Your task to perform on an android device: turn on improve location accuracy Image 0: 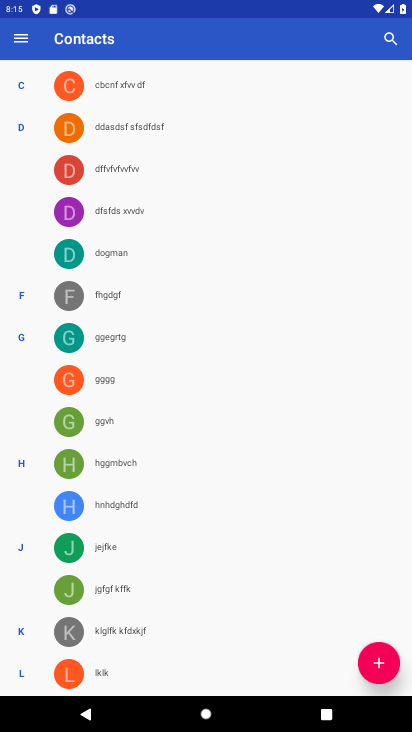
Step 0: press home button
Your task to perform on an android device: turn on improve location accuracy Image 1: 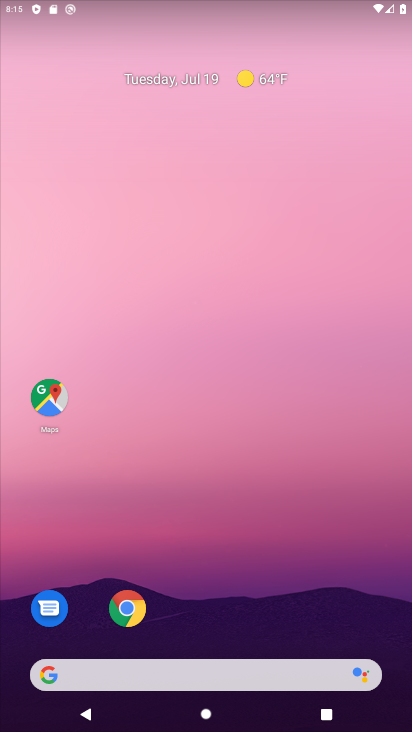
Step 1: drag from (212, 667) to (198, 115)
Your task to perform on an android device: turn on improve location accuracy Image 2: 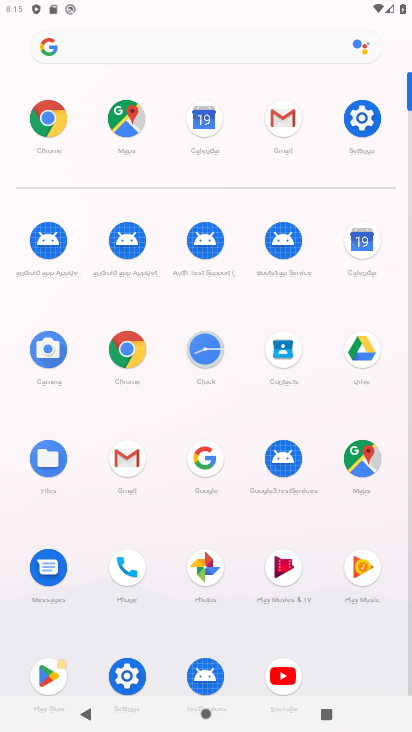
Step 2: click (367, 123)
Your task to perform on an android device: turn on improve location accuracy Image 3: 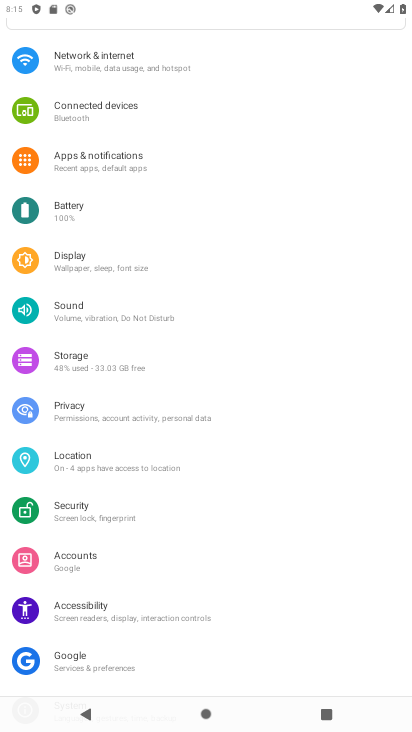
Step 3: click (92, 456)
Your task to perform on an android device: turn on improve location accuracy Image 4: 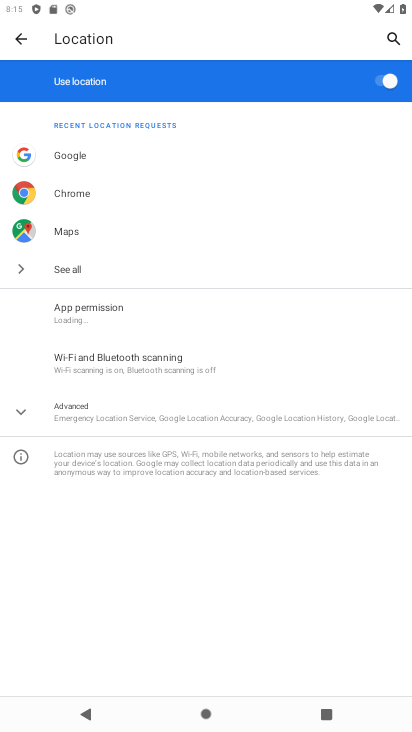
Step 4: click (80, 416)
Your task to perform on an android device: turn on improve location accuracy Image 5: 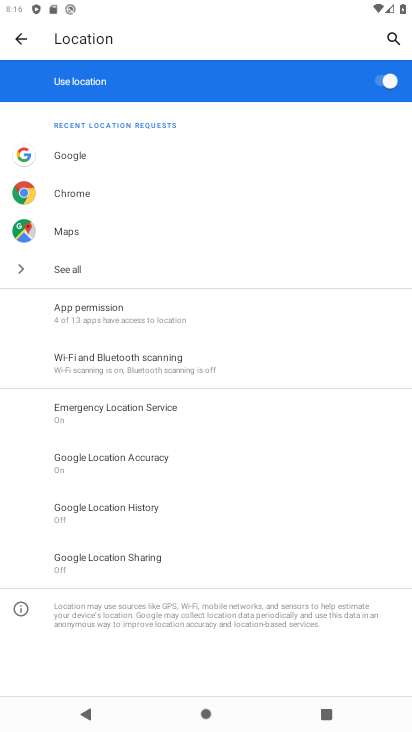
Step 5: click (100, 468)
Your task to perform on an android device: turn on improve location accuracy Image 6: 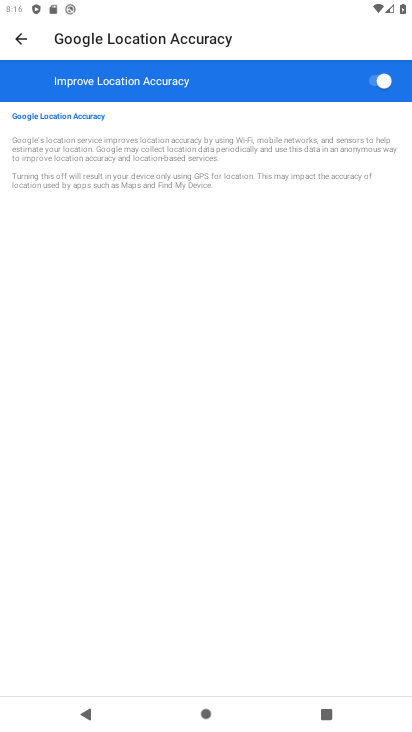
Step 6: task complete